Your task to perform on an android device: toggle javascript in the chrome app Image 0: 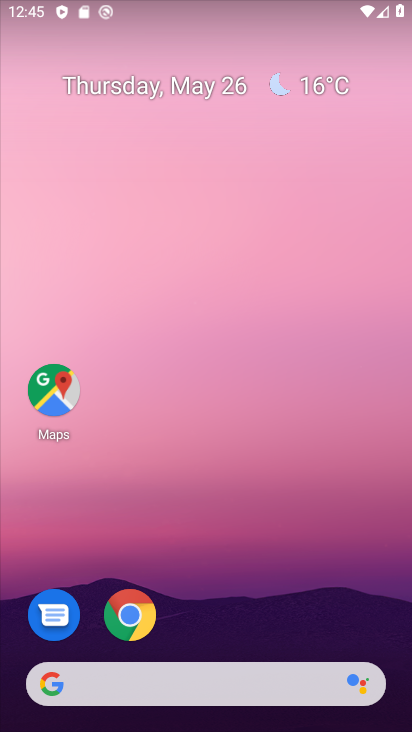
Step 0: drag from (204, 638) to (99, 31)
Your task to perform on an android device: toggle javascript in the chrome app Image 1: 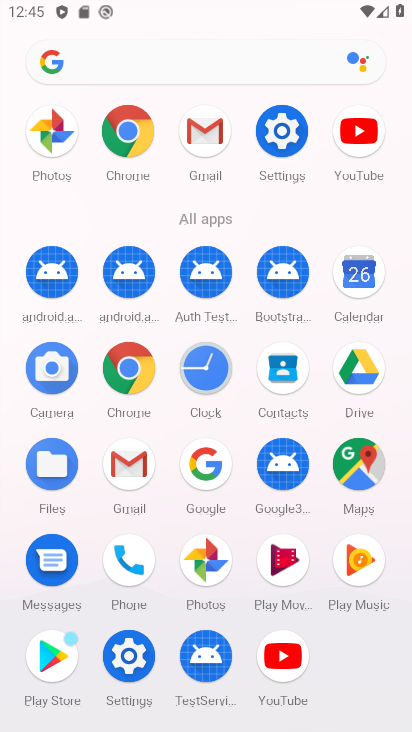
Step 1: click (131, 369)
Your task to perform on an android device: toggle javascript in the chrome app Image 2: 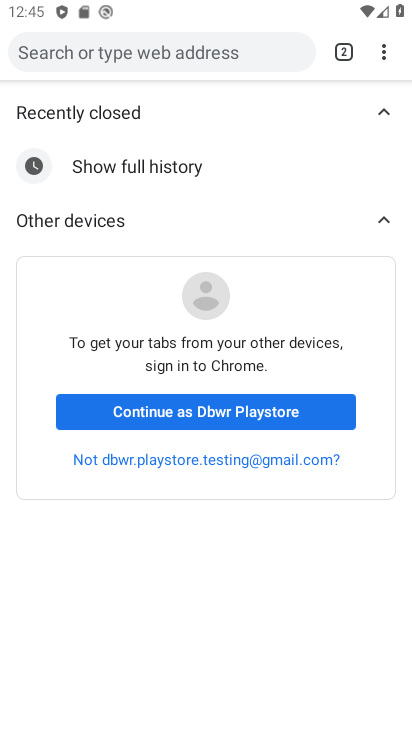
Step 2: click (377, 61)
Your task to perform on an android device: toggle javascript in the chrome app Image 3: 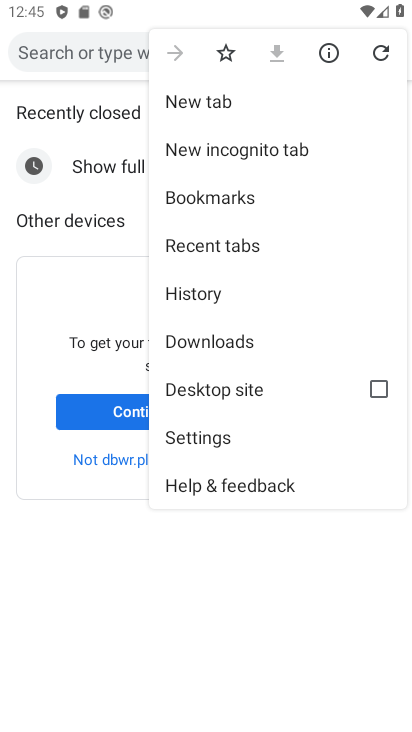
Step 3: click (223, 449)
Your task to perform on an android device: toggle javascript in the chrome app Image 4: 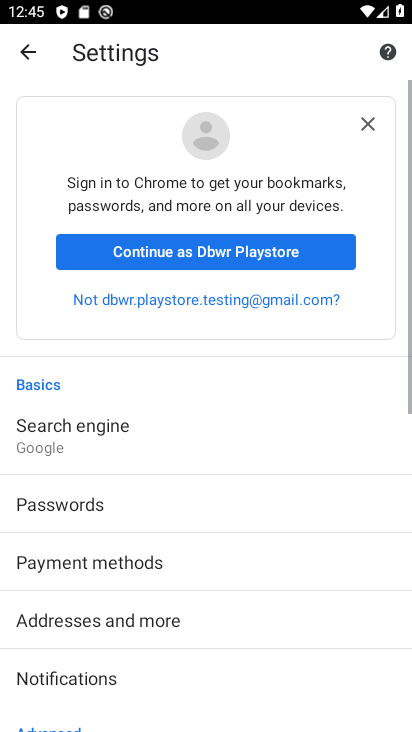
Step 4: drag from (120, 624) to (258, 20)
Your task to perform on an android device: toggle javascript in the chrome app Image 5: 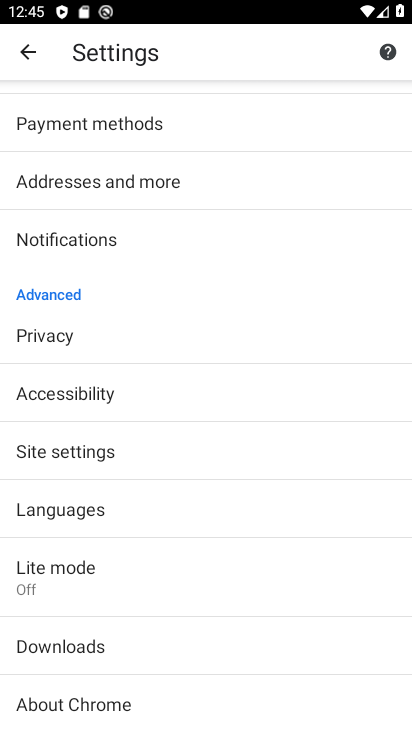
Step 5: click (89, 446)
Your task to perform on an android device: toggle javascript in the chrome app Image 6: 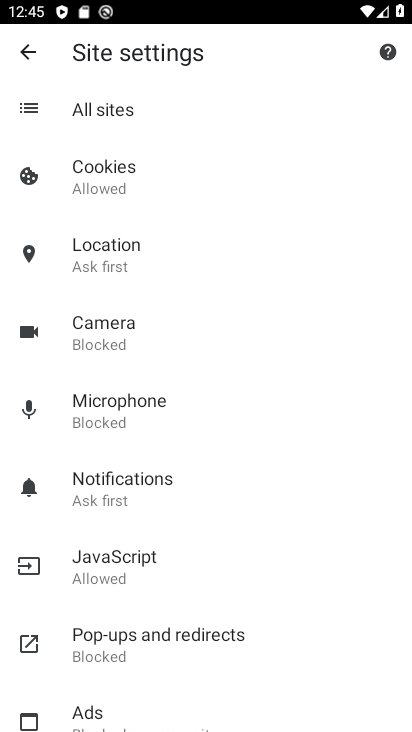
Step 6: click (142, 565)
Your task to perform on an android device: toggle javascript in the chrome app Image 7: 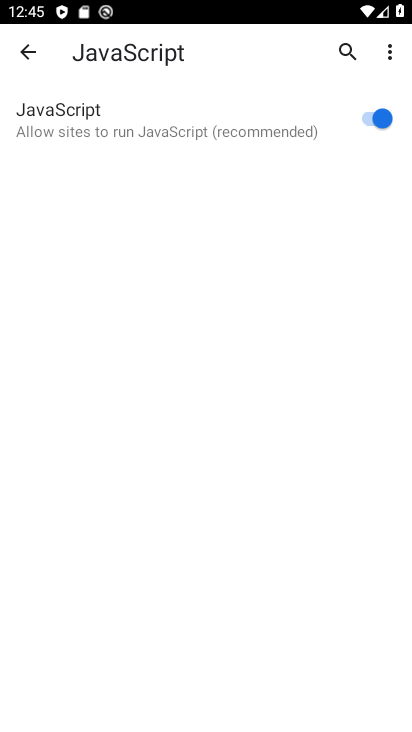
Step 7: click (367, 96)
Your task to perform on an android device: toggle javascript in the chrome app Image 8: 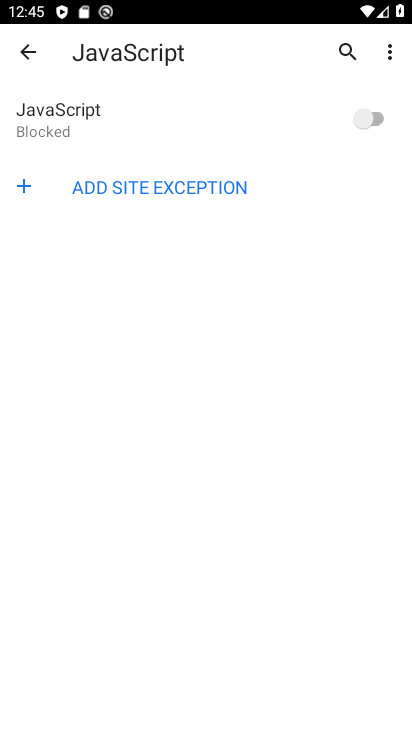
Step 8: task complete